Your task to perform on an android device: toggle sleep mode Image 0: 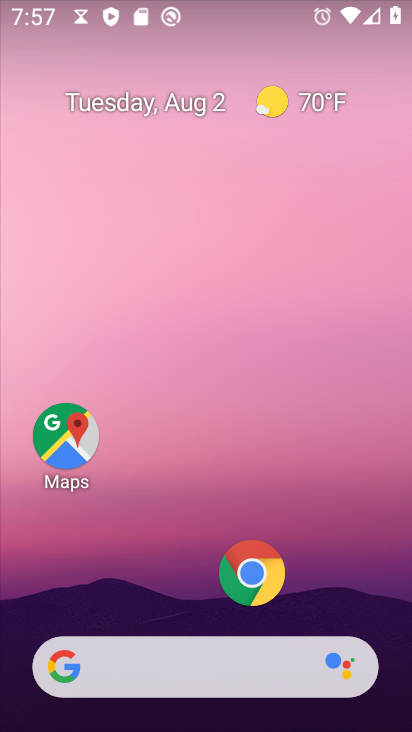
Step 0: press home button
Your task to perform on an android device: toggle sleep mode Image 1: 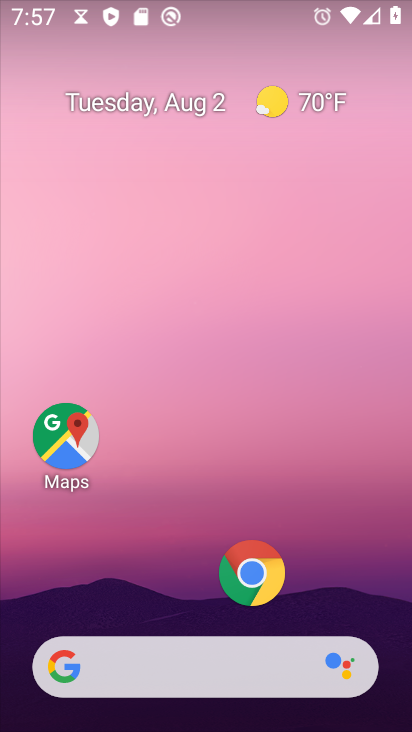
Step 1: press home button
Your task to perform on an android device: toggle sleep mode Image 2: 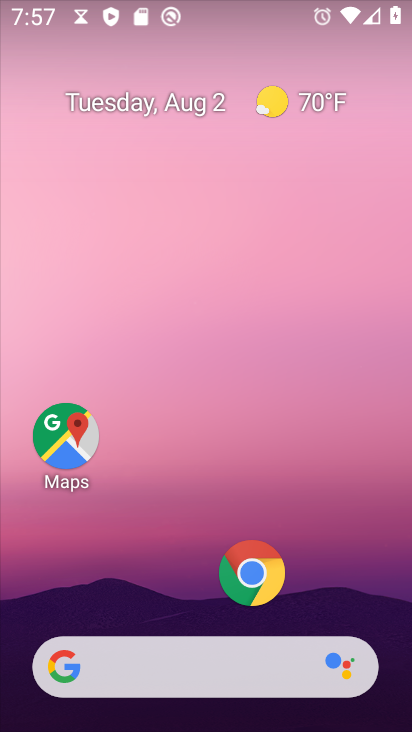
Step 2: press home button
Your task to perform on an android device: toggle sleep mode Image 3: 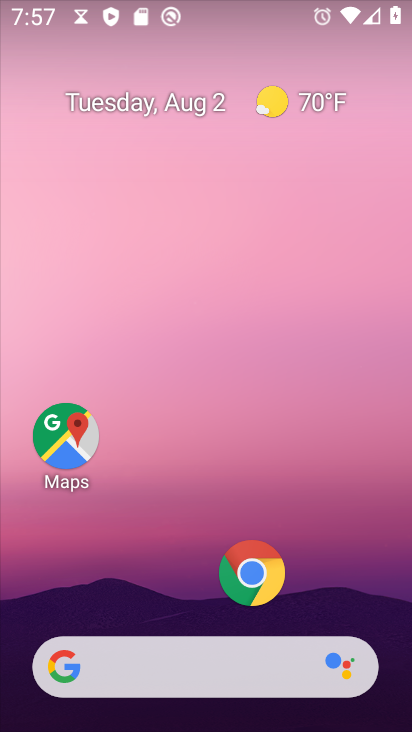
Step 3: drag from (199, 615) to (257, 8)
Your task to perform on an android device: toggle sleep mode Image 4: 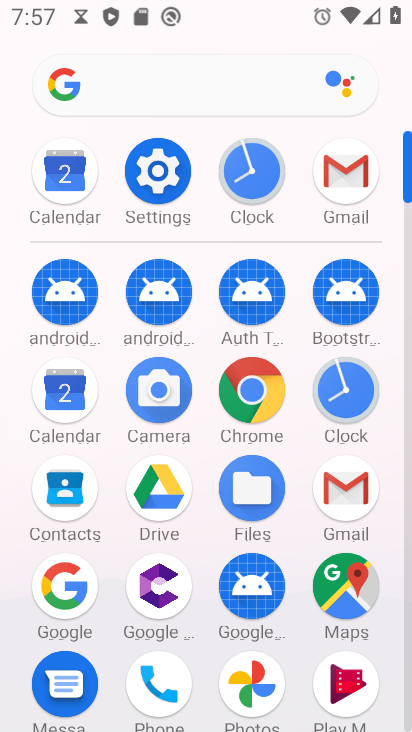
Step 4: click (158, 166)
Your task to perform on an android device: toggle sleep mode Image 5: 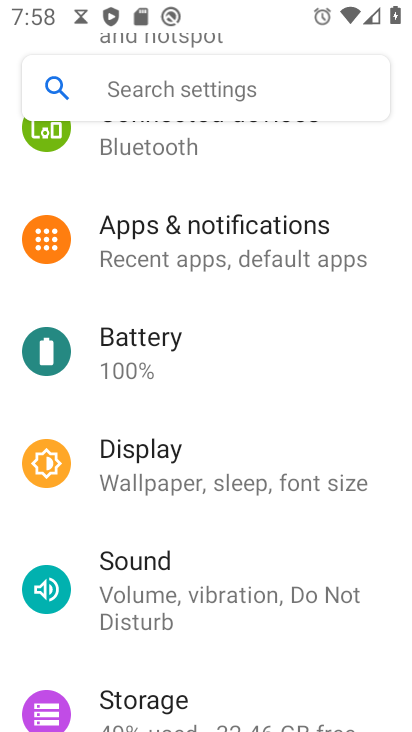
Step 5: click (166, 457)
Your task to perform on an android device: toggle sleep mode Image 6: 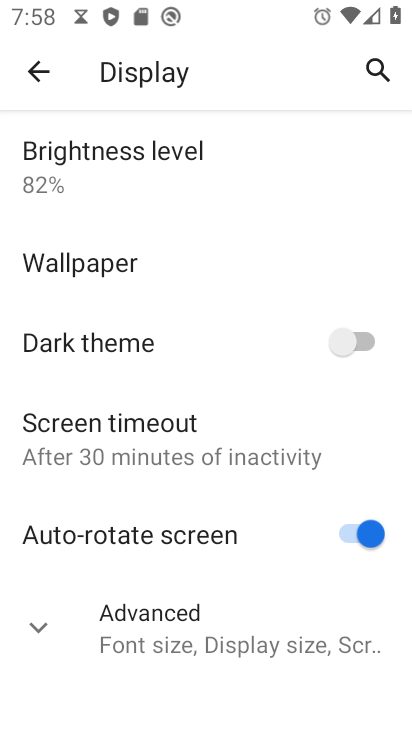
Step 6: click (42, 618)
Your task to perform on an android device: toggle sleep mode Image 7: 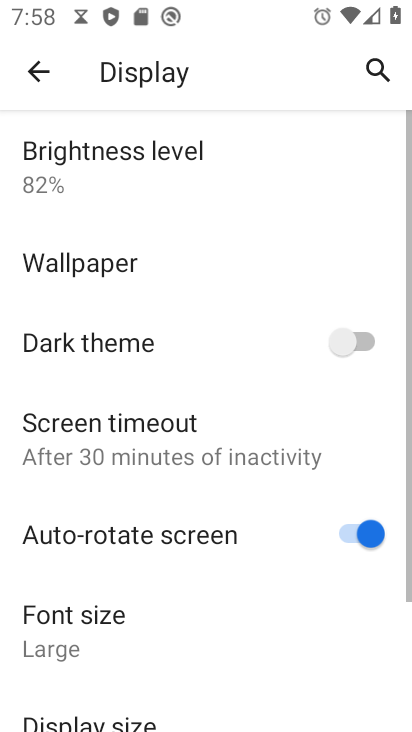
Step 7: task complete